Your task to perform on an android device: Open Google Image 0: 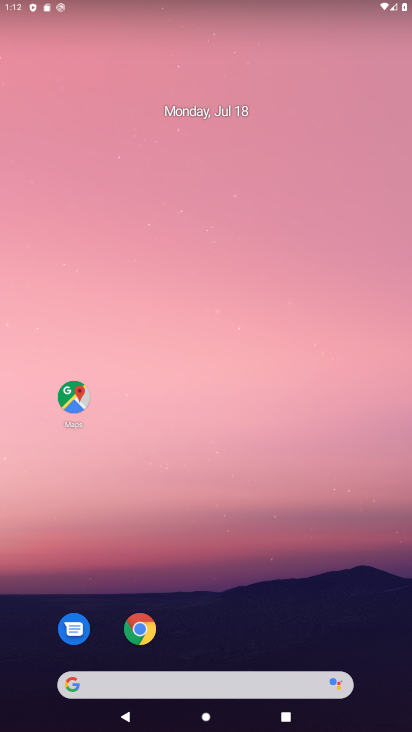
Step 0: click (149, 690)
Your task to perform on an android device: Open Google Image 1: 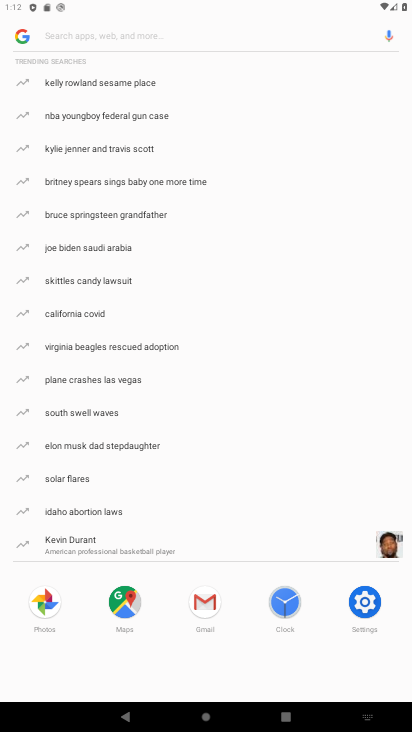
Step 1: task complete